Your task to perform on an android device: add a contact Image 0: 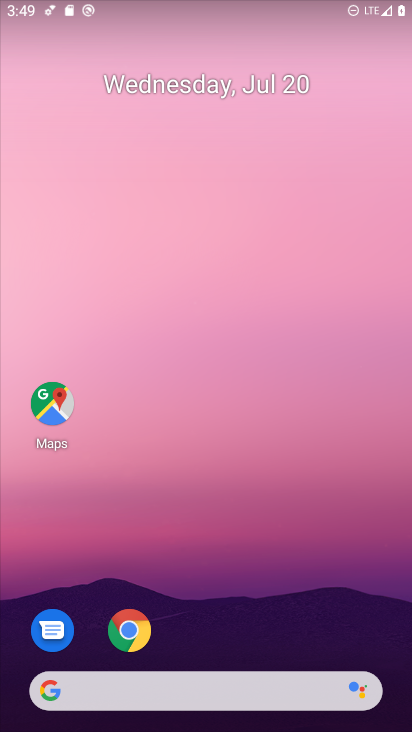
Step 0: drag from (280, 202) to (302, 69)
Your task to perform on an android device: add a contact Image 1: 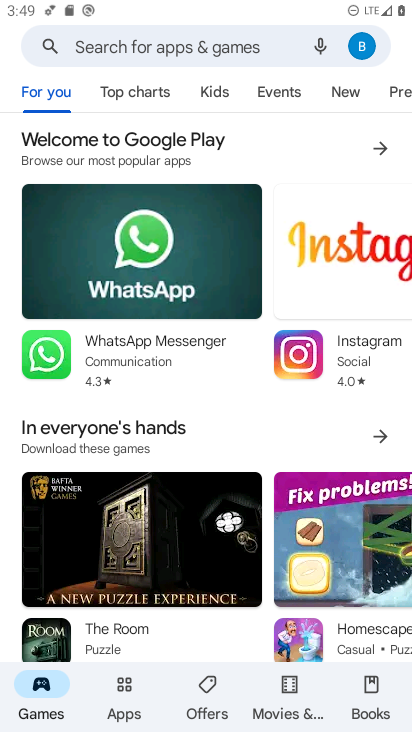
Step 1: press home button
Your task to perform on an android device: add a contact Image 2: 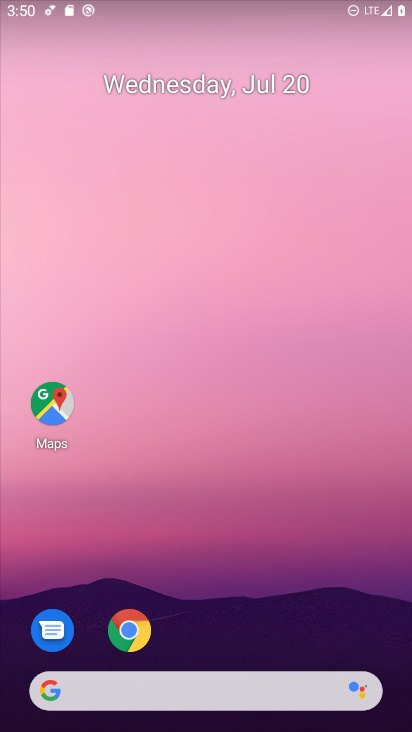
Step 2: drag from (221, 636) to (268, 3)
Your task to perform on an android device: add a contact Image 3: 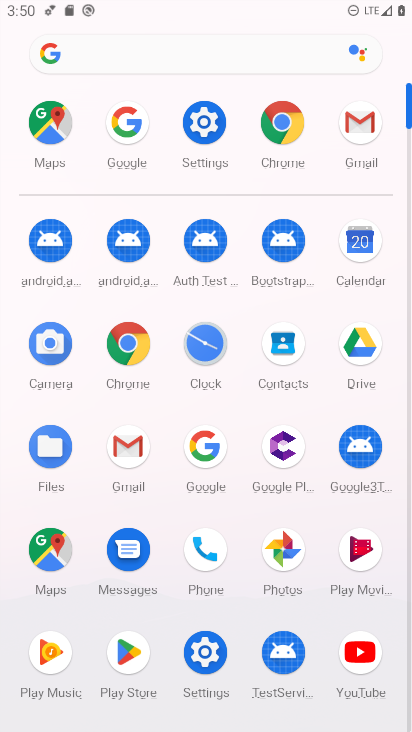
Step 3: click (282, 340)
Your task to perform on an android device: add a contact Image 4: 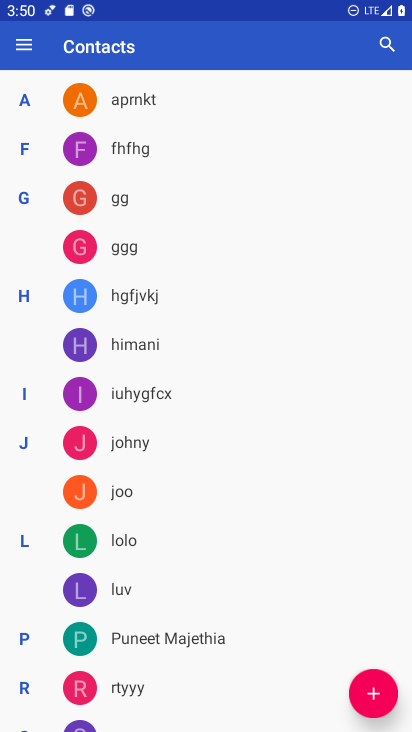
Step 4: click (373, 687)
Your task to perform on an android device: add a contact Image 5: 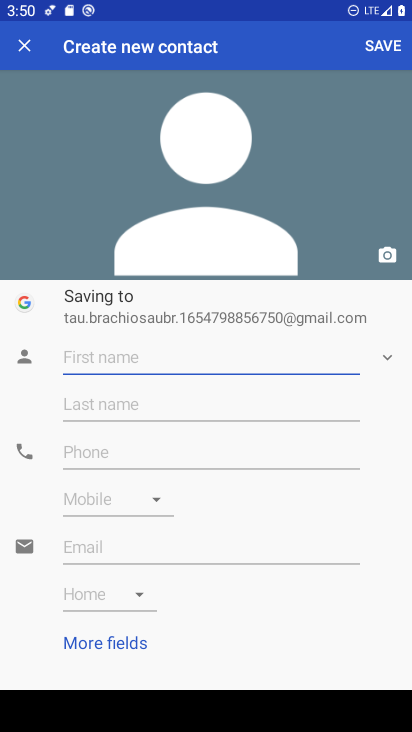
Step 5: click (124, 358)
Your task to perform on an android device: add a contact Image 6: 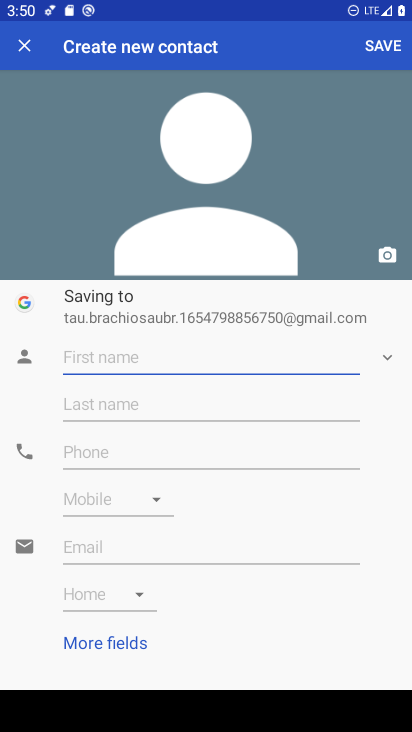
Step 6: type "aparna gupta"
Your task to perform on an android device: add a contact Image 7: 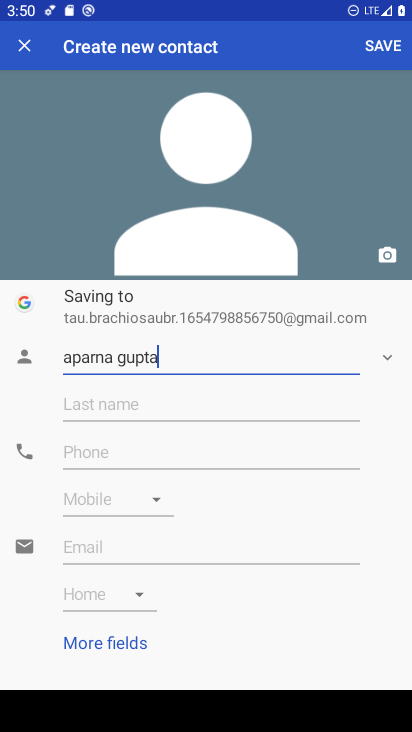
Step 7: click (386, 49)
Your task to perform on an android device: add a contact Image 8: 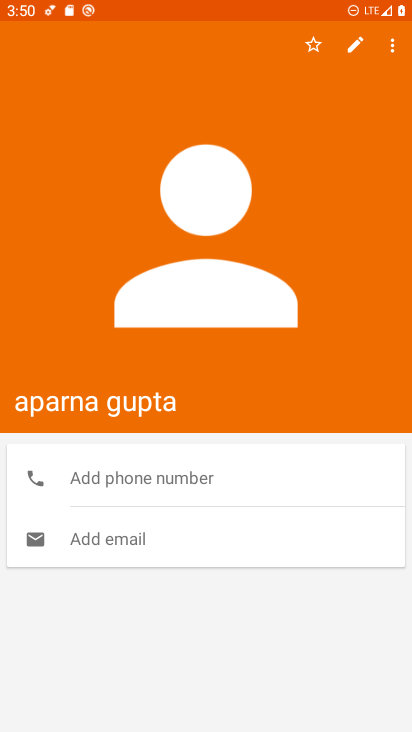
Step 8: task complete